Your task to perform on an android device: View the shopping cart on amazon. Image 0: 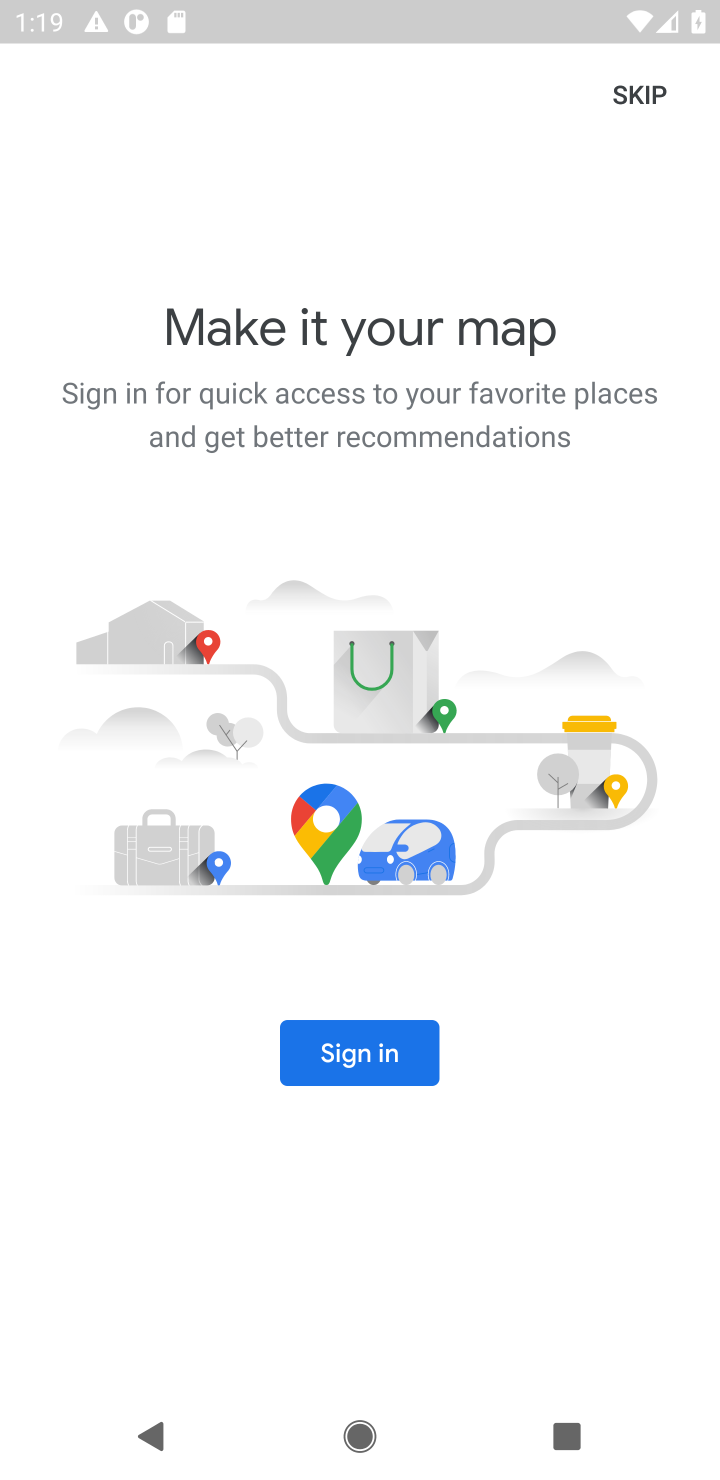
Step 0: press home button
Your task to perform on an android device: View the shopping cart on amazon. Image 1: 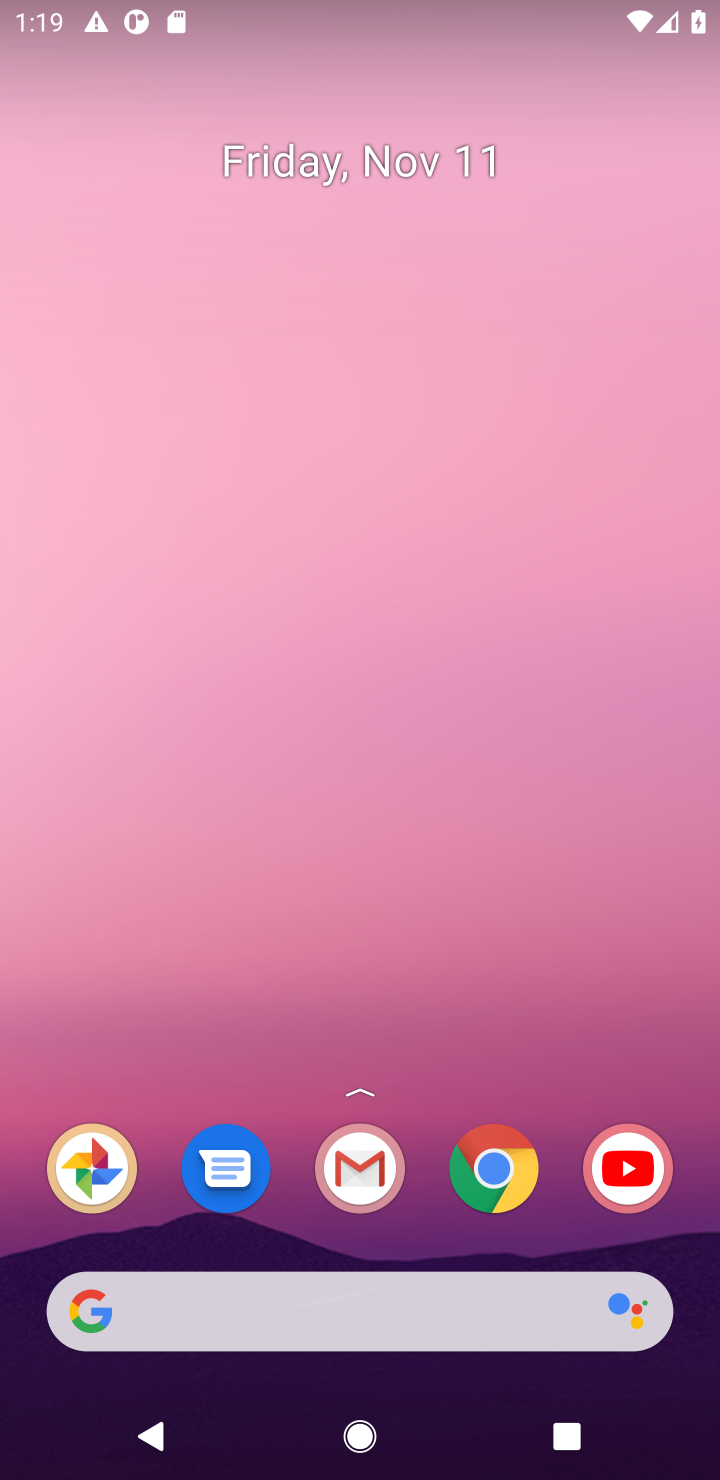
Step 1: click (486, 1176)
Your task to perform on an android device: View the shopping cart on amazon. Image 2: 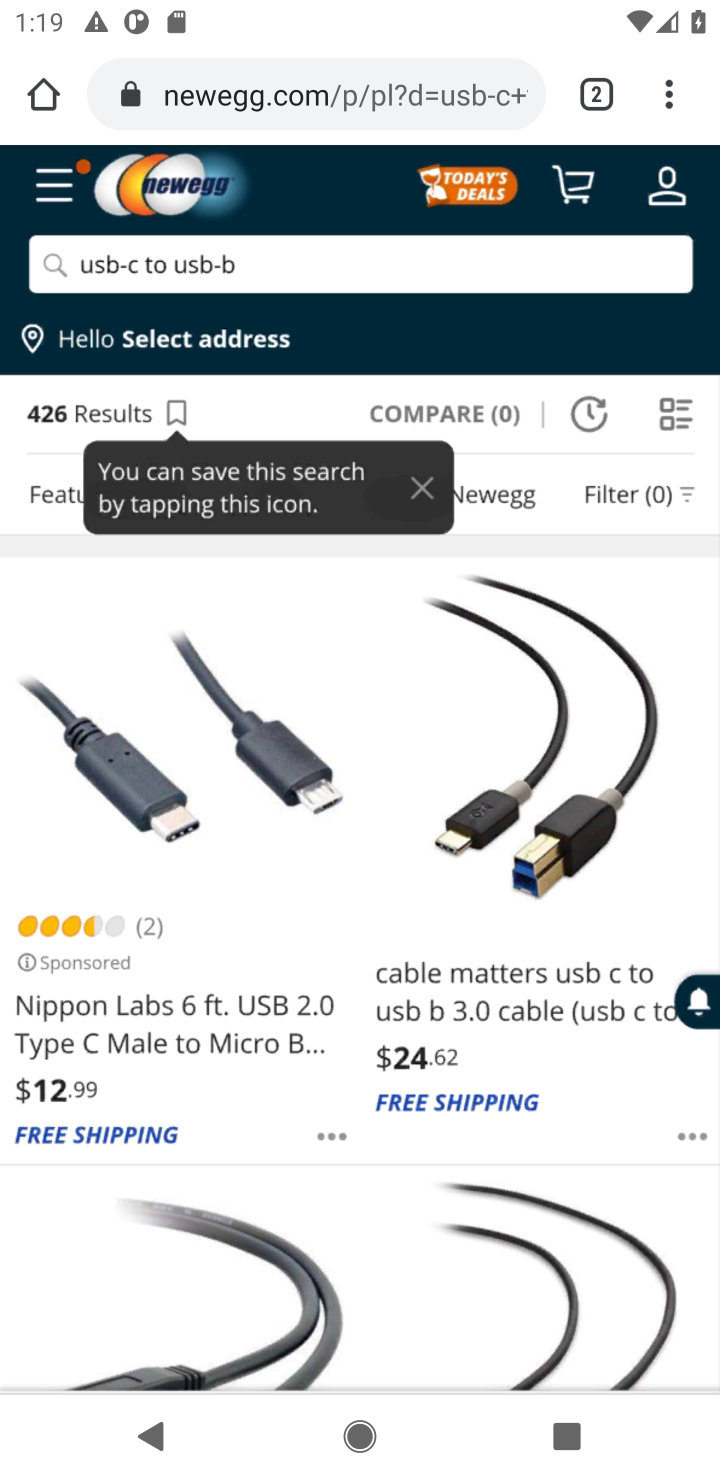
Step 2: click (261, 91)
Your task to perform on an android device: View the shopping cart on amazon. Image 3: 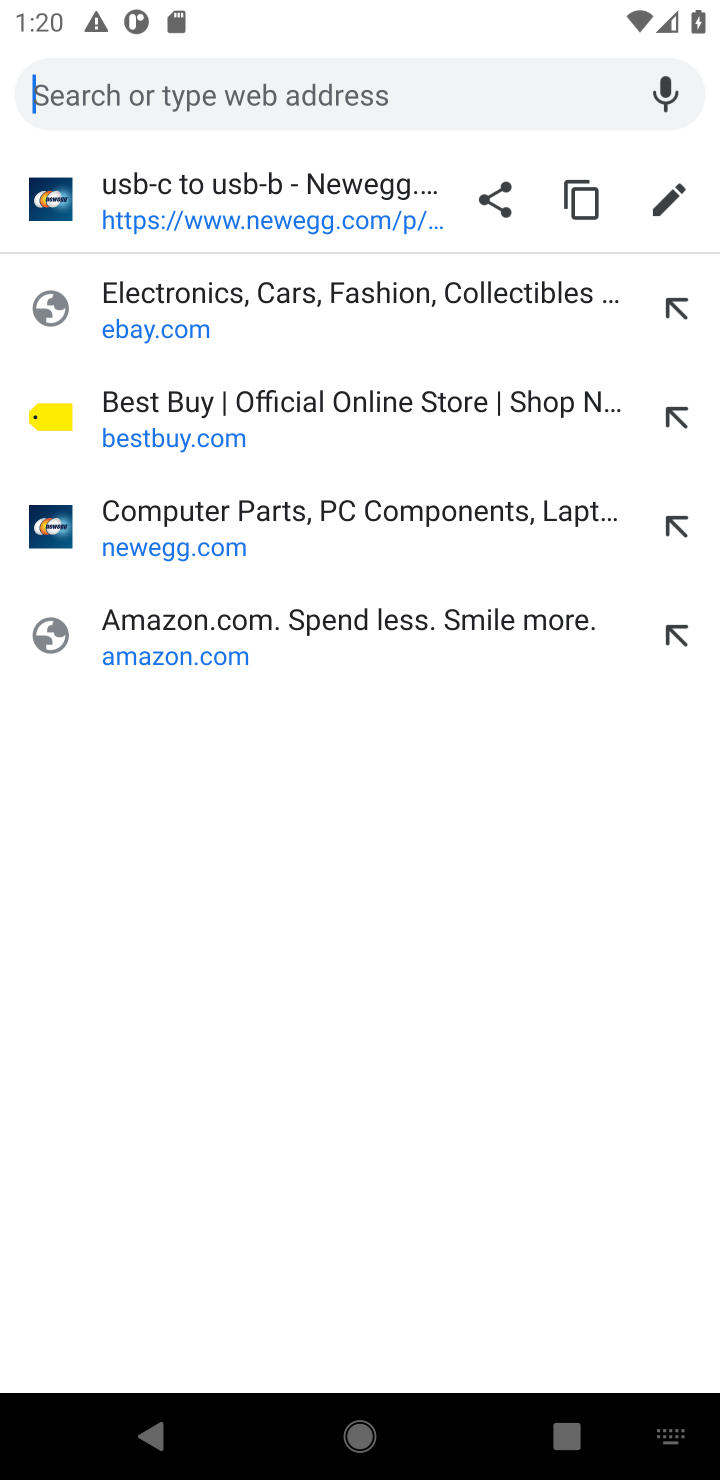
Step 3: click (126, 629)
Your task to perform on an android device: View the shopping cart on amazon. Image 4: 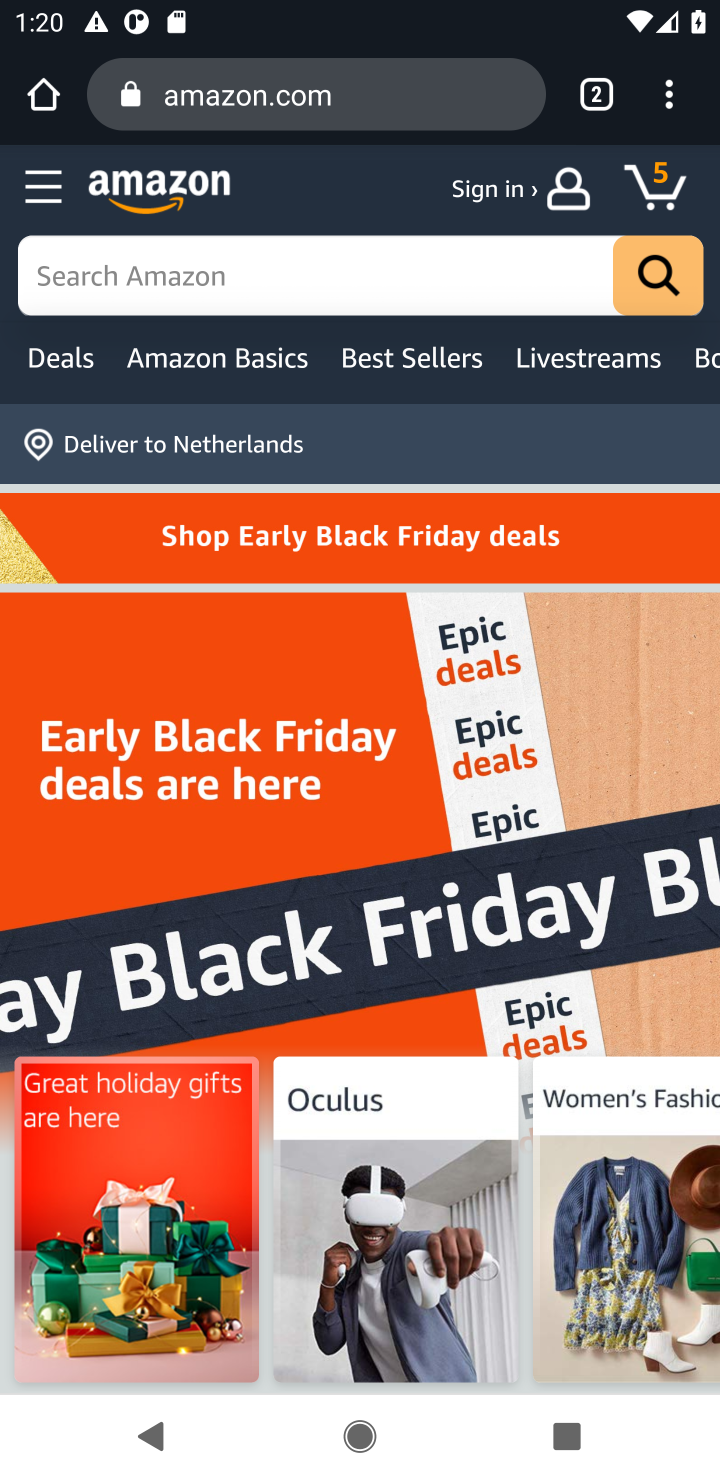
Step 4: click (658, 182)
Your task to perform on an android device: View the shopping cart on amazon. Image 5: 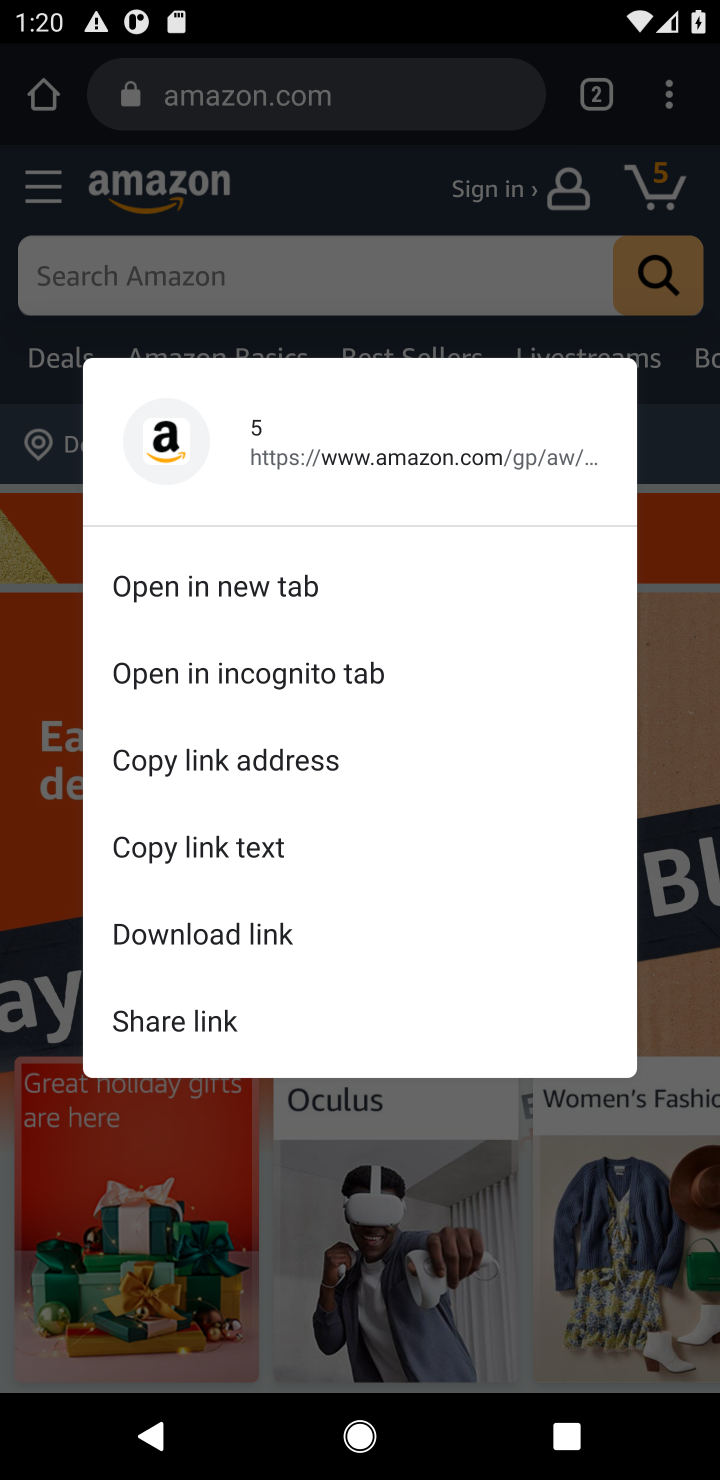
Step 5: click (680, 192)
Your task to perform on an android device: View the shopping cart on amazon. Image 6: 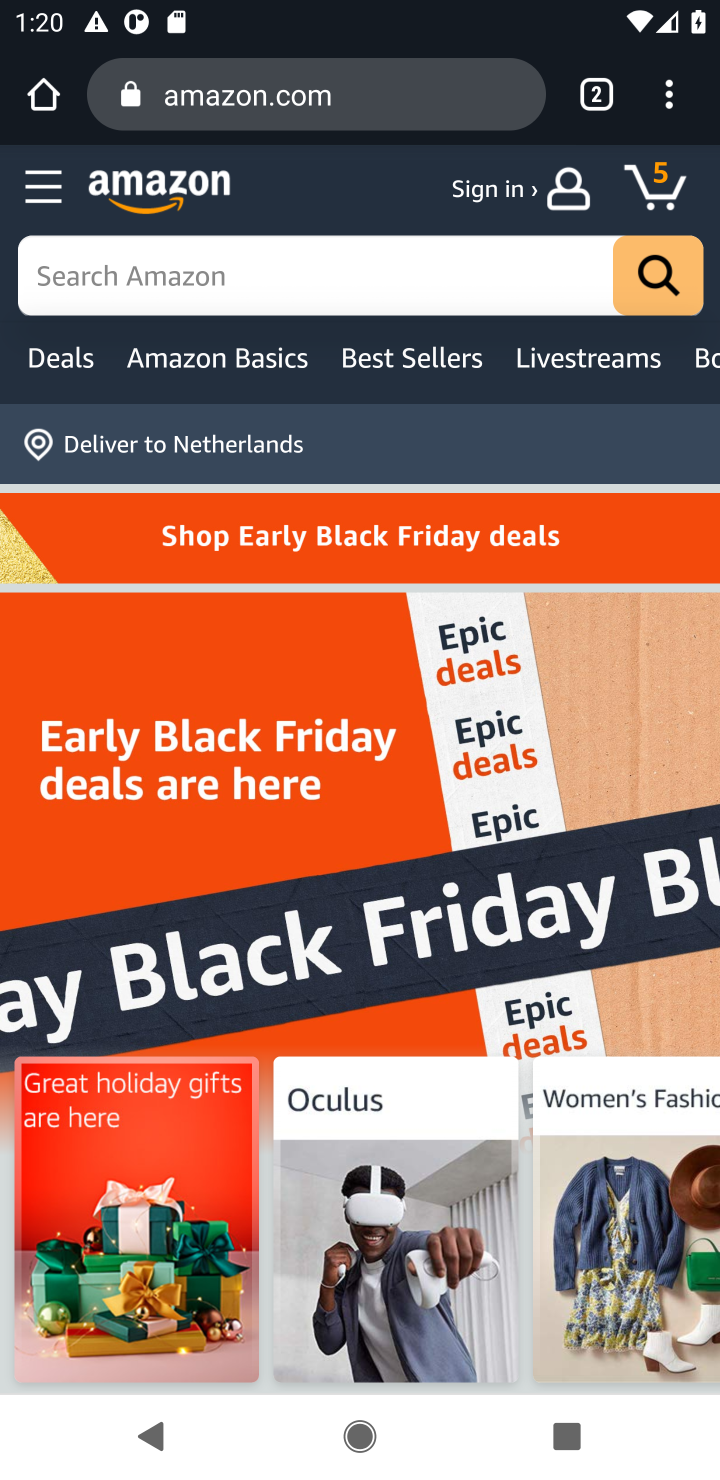
Step 6: click (664, 183)
Your task to perform on an android device: View the shopping cart on amazon. Image 7: 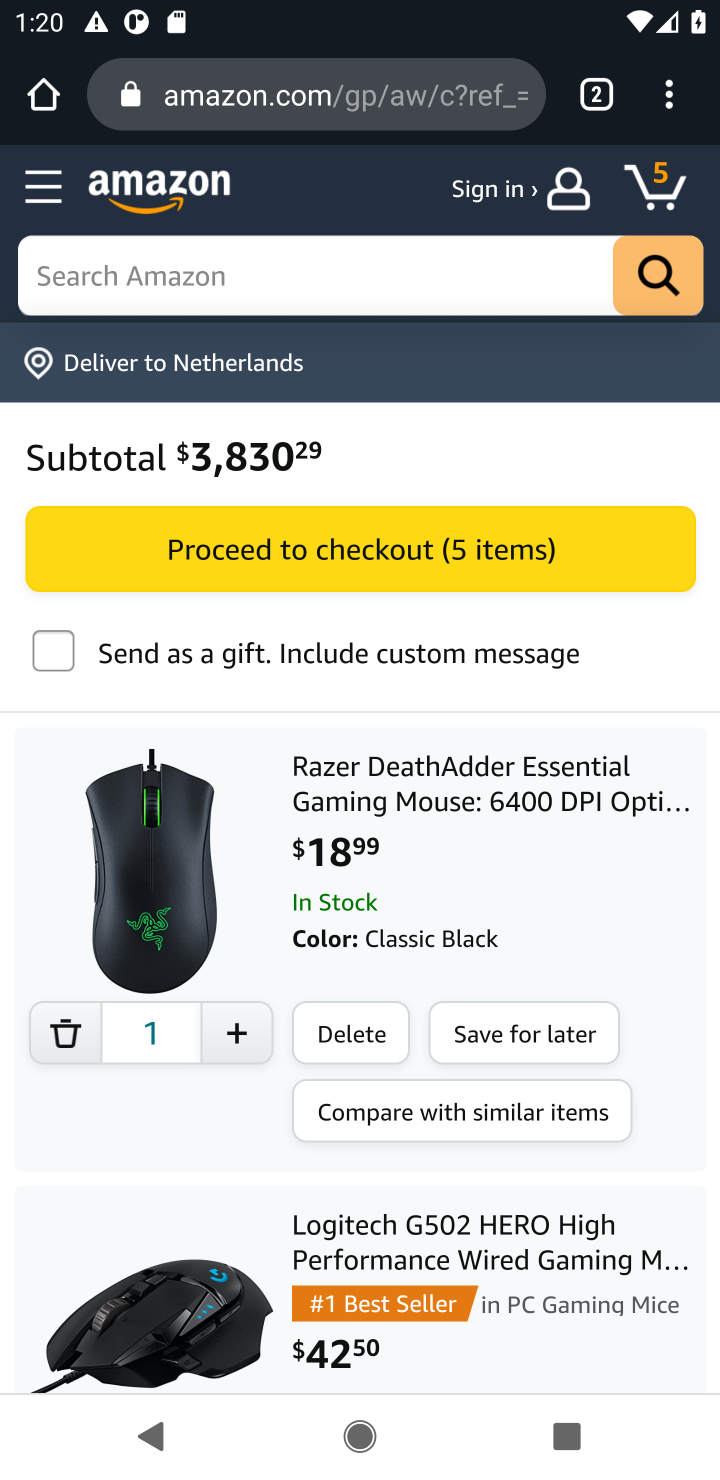
Step 7: task complete